Your task to perform on an android device: Open privacy settings Image 0: 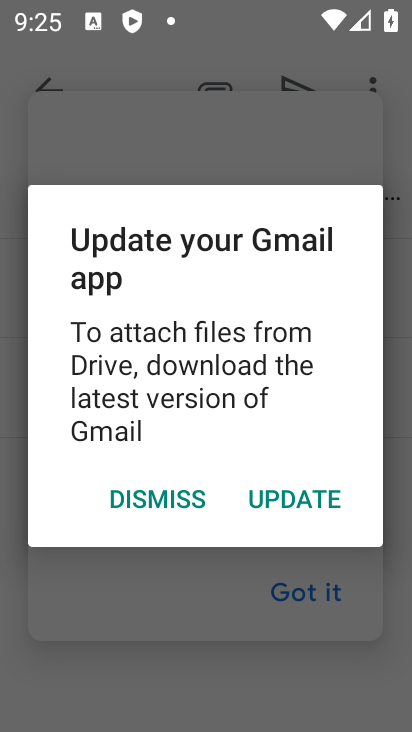
Step 0: press home button
Your task to perform on an android device: Open privacy settings Image 1: 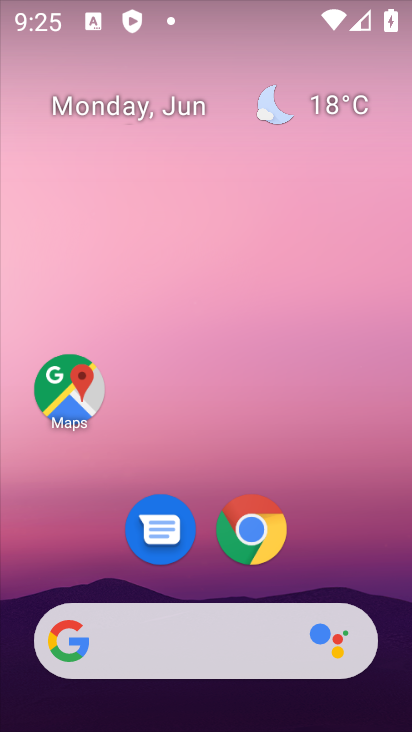
Step 1: drag from (313, 551) to (262, 0)
Your task to perform on an android device: Open privacy settings Image 2: 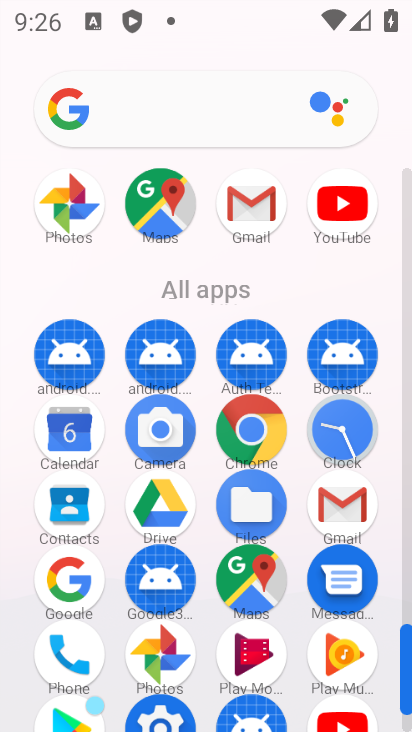
Step 2: click (409, 722)
Your task to perform on an android device: Open privacy settings Image 3: 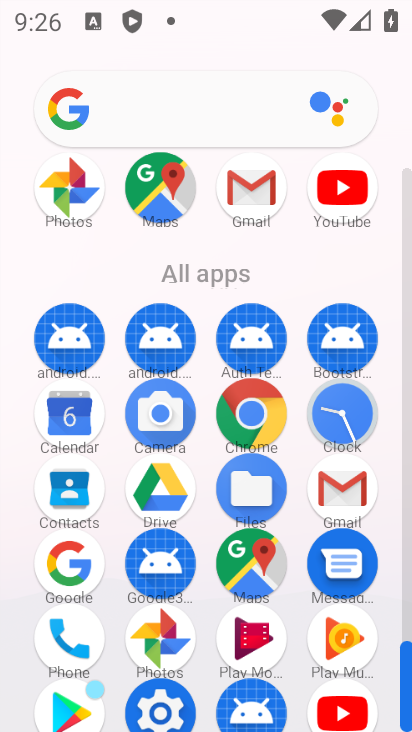
Step 3: click (163, 696)
Your task to perform on an android device: Open privacy settings Image 4: 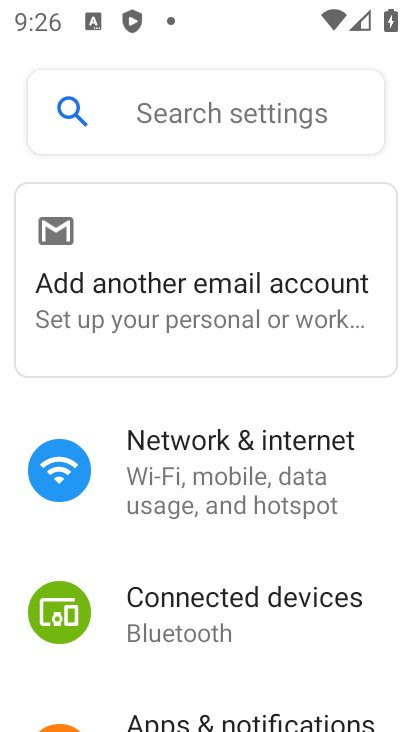
Step 4: drag from (265, 685) to (300, 258)
Your task to perform on an android device: Open privacy settings Image 5: 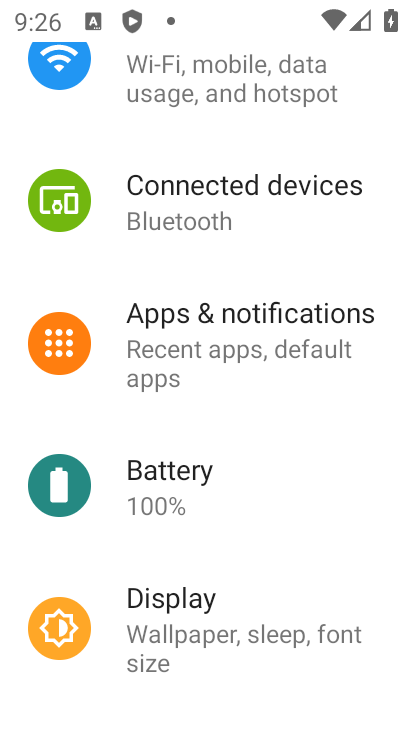
Step 5: drag from (240, 645) to (294, 328)
Your task to perform on an android device: Open privacy settings Image 6: 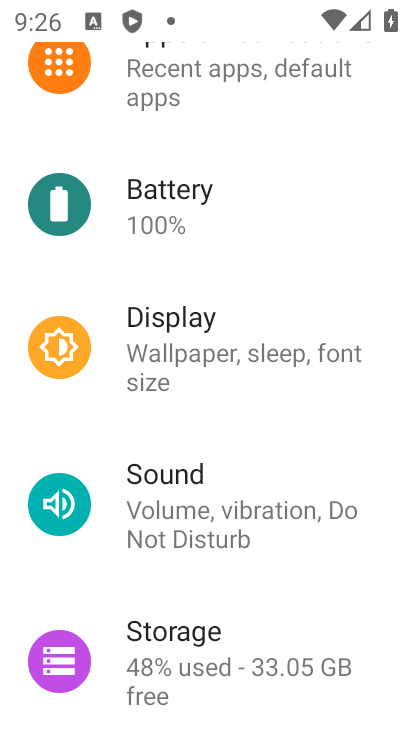
Step 6: drag from (223, 562) to (253, 0)
Your task to perform on an android device: Open privacy settings Image 7: 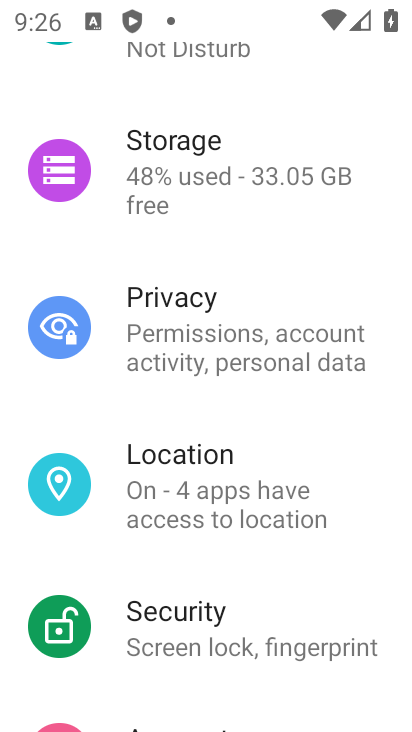
Step 7: drag from (313, 586) to (264, 353)
Your task to perform on an android device: Open privacy settings Image 8: 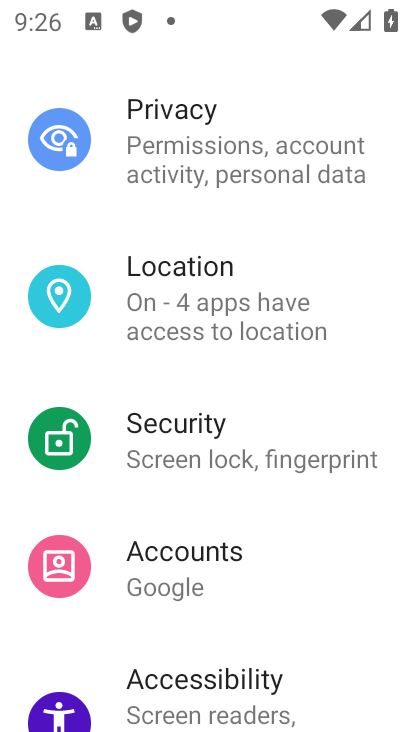
Step 8: click (299, 131)
Your task to perform on an android device: Open privacy settings Image 9: 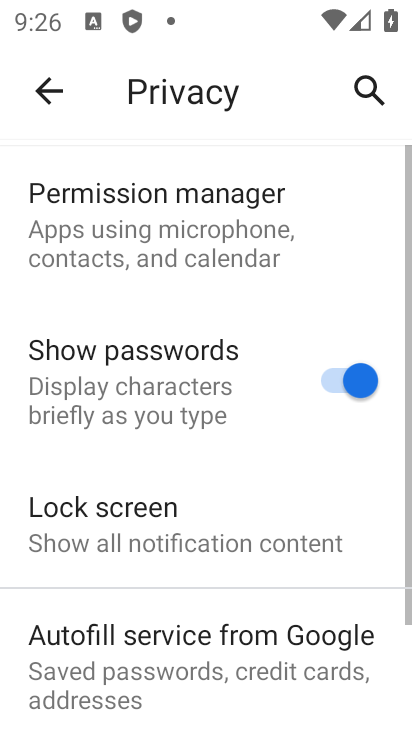
Step 9: task complete